Your task to perform on an android device: Search for the best gaming mouses on Amazon. Image 0: 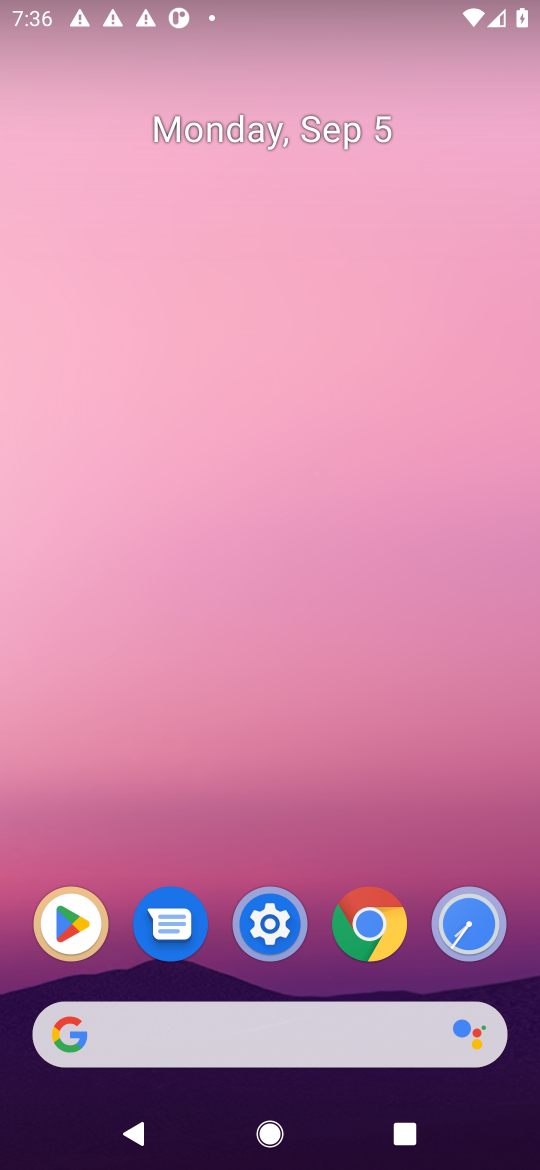
Step 0: click (374, 1023)
Your task to perform on an android device: Search for the best gaming mouses on Amazon. Image 1: 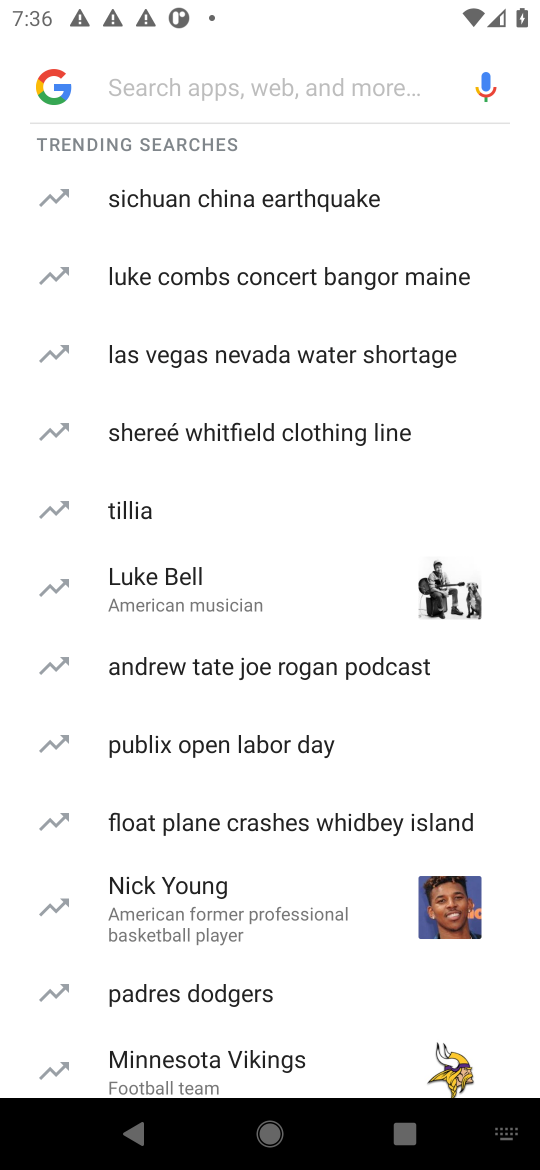
Step 1: type "amazon"
Your task to perform on an android device: Search for the best gaming mouses on Amazon. Image 2: 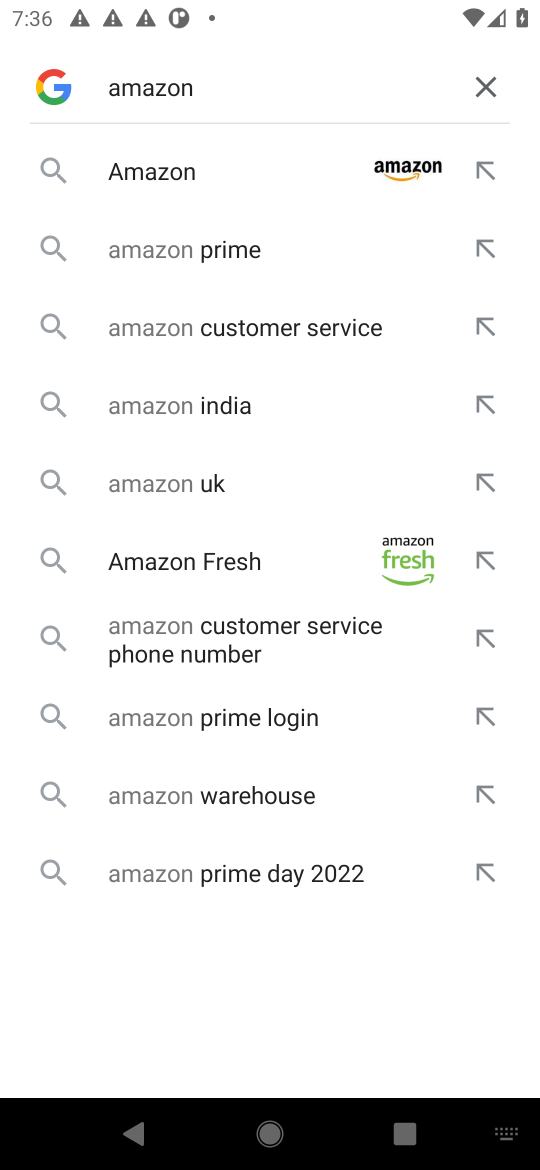
Step 2: press enter
Your task to perform on an android device: Search for the best gaming mouses on Amazon. Image 3: 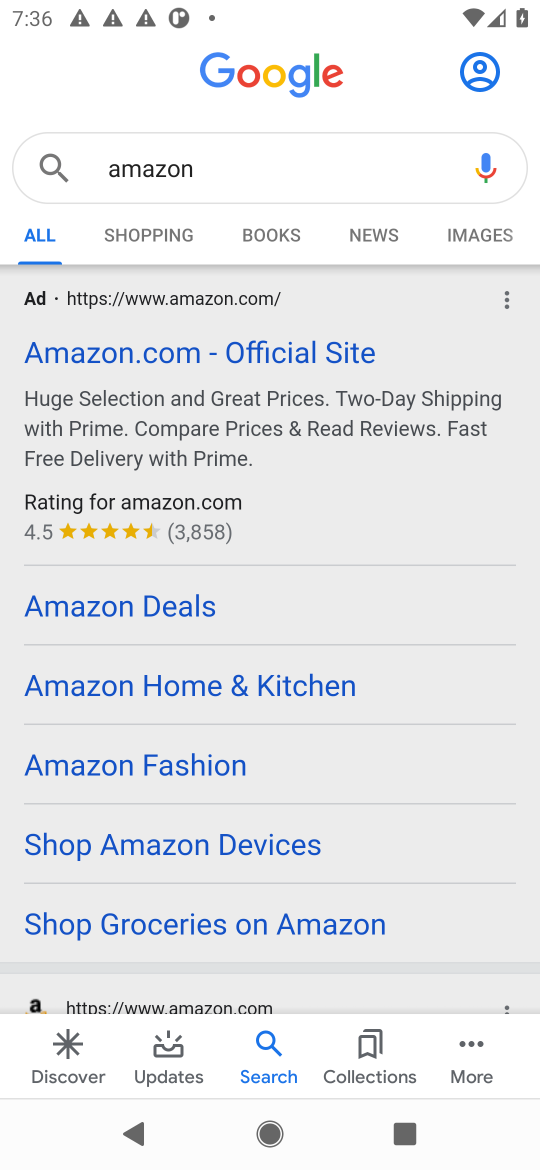
Step 3: click (194, 355)
Your task to perform on an android device: Search for the best gaming mouses on Amazon. Image 4: 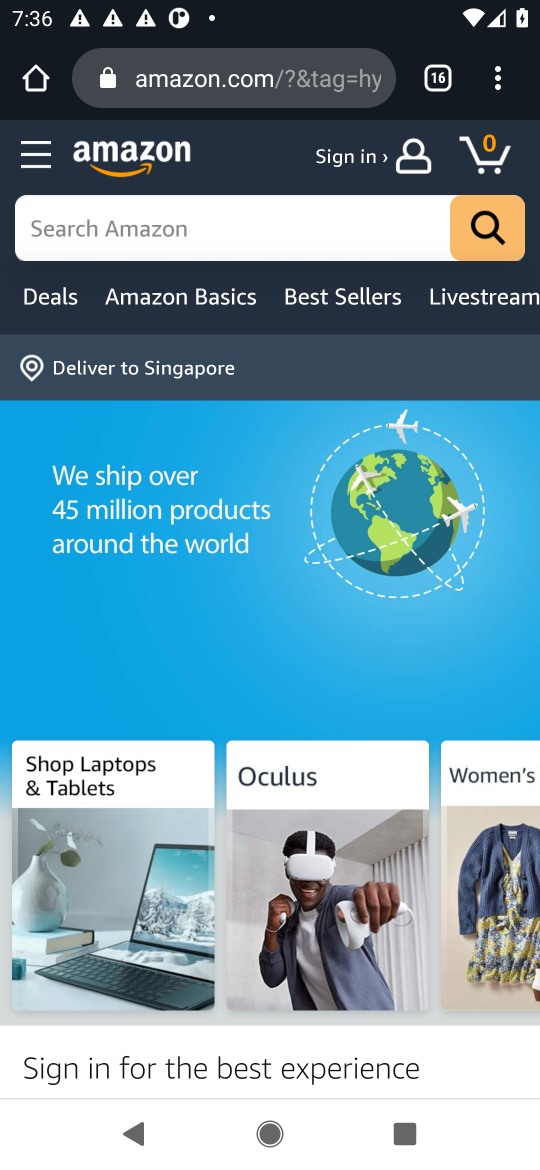
Step 4: click (179, 226)
Your task to perform on an android device: Search for the best gaming mouses on Amazon. Image 5: 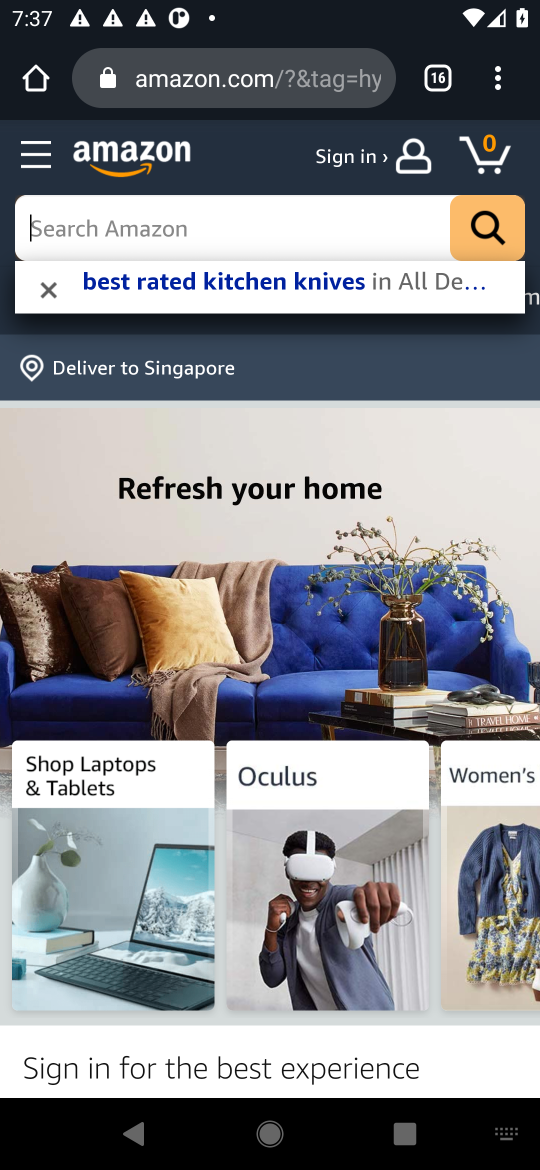
Step 5: type "best gaming mouses "
Your task to perform on an android device: Search for the best gaming mouses on Amazon. Image 6: 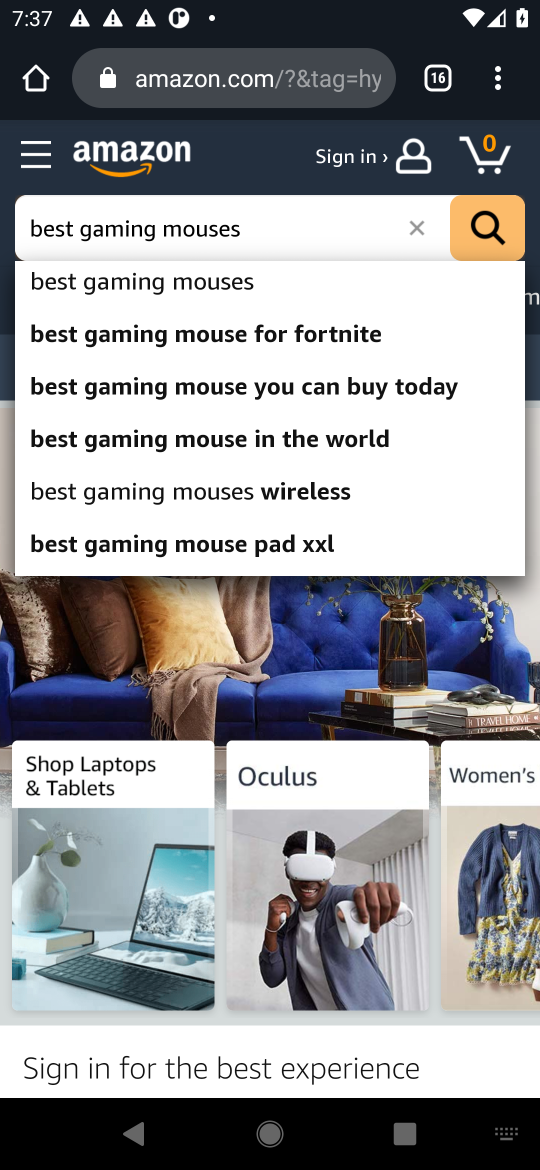
Step 6: click (251, 287)
Your task to perform on an android device: Search for the best gaming mouses on Amazon. Image 7: 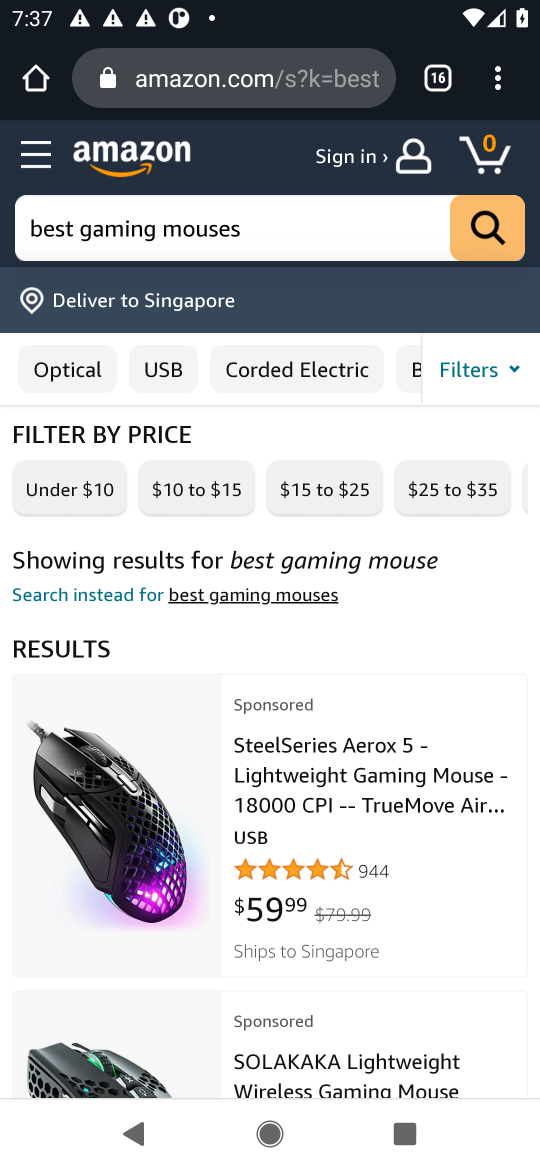
Step 7: task complete